Your task to perform on an android device: remove spam from my inbox in the gmail app Image 0: 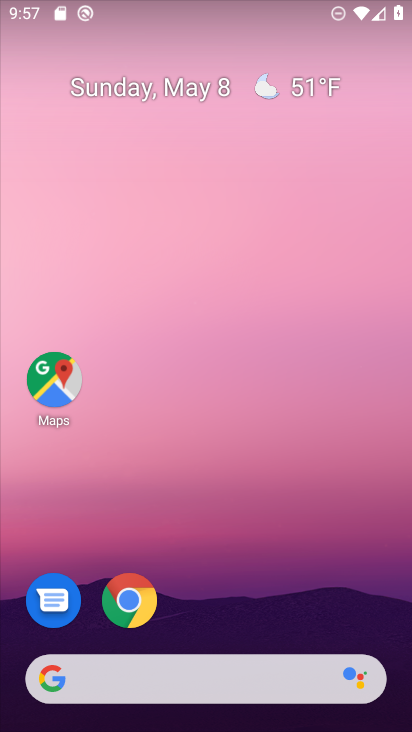
Step 0: drag from (308, 615) to (265, 17)
Your task to perform on an android device: remove spam from my inbox in the gmail app Image 1: 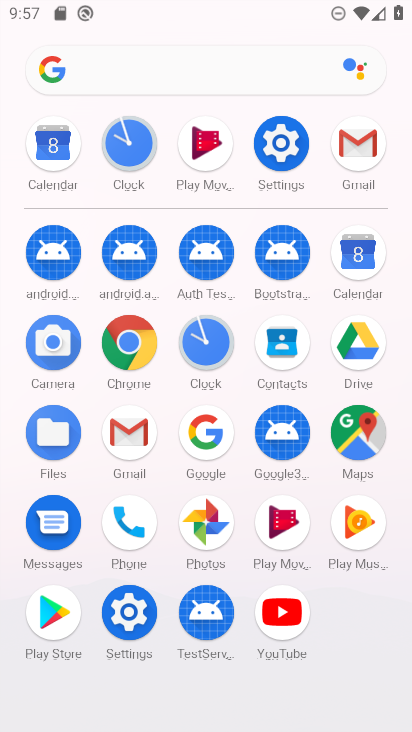
Step 1: click (357, 153)
Your task to perform on an android device: remove spam from my inbox in the gmail app Image 2: 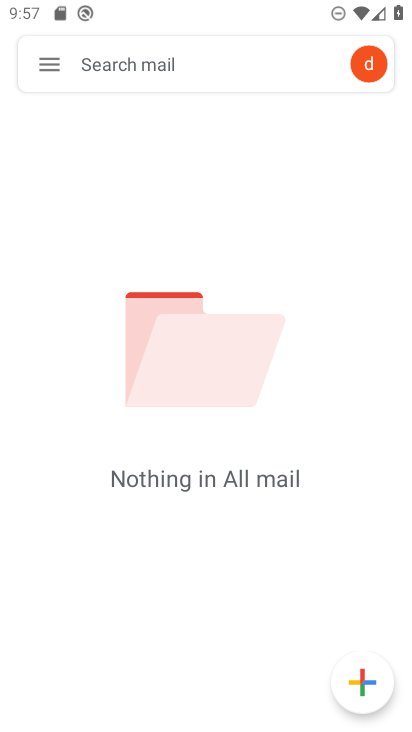
Step 2: click (43, 66)
Your task to perform on an android device: remove spam from my inbox in the gmail app Image 3: 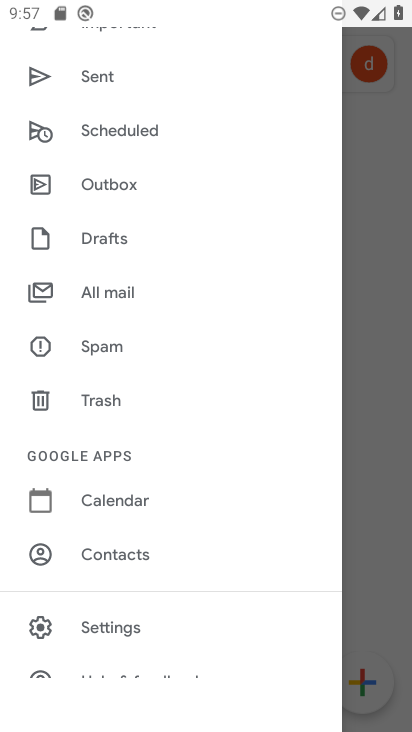
Step 3: click (102, 344)
Your task to perform on an android device: remove spam from my inbox in the gmail app Image 4: 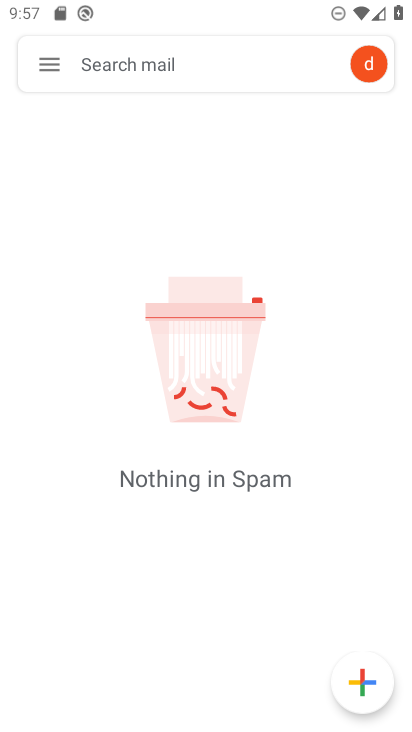
Step 4: task complete